Your task to perform on an android device: How do I get to the nearest Apple Store? Image 0: 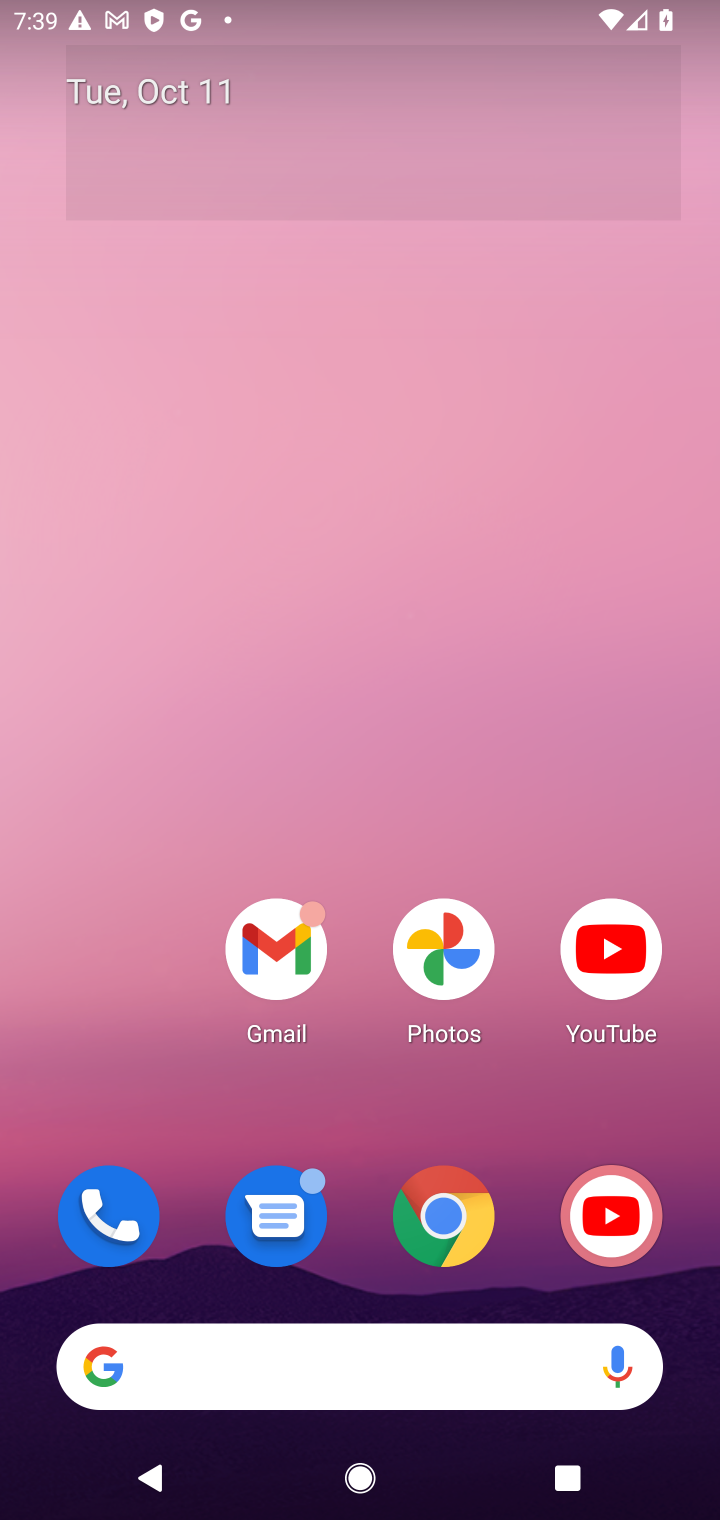
Step 0: click (425, 1208)
Your task to perform on an android device: How do I get to the nearest Apple Store? Image 1: 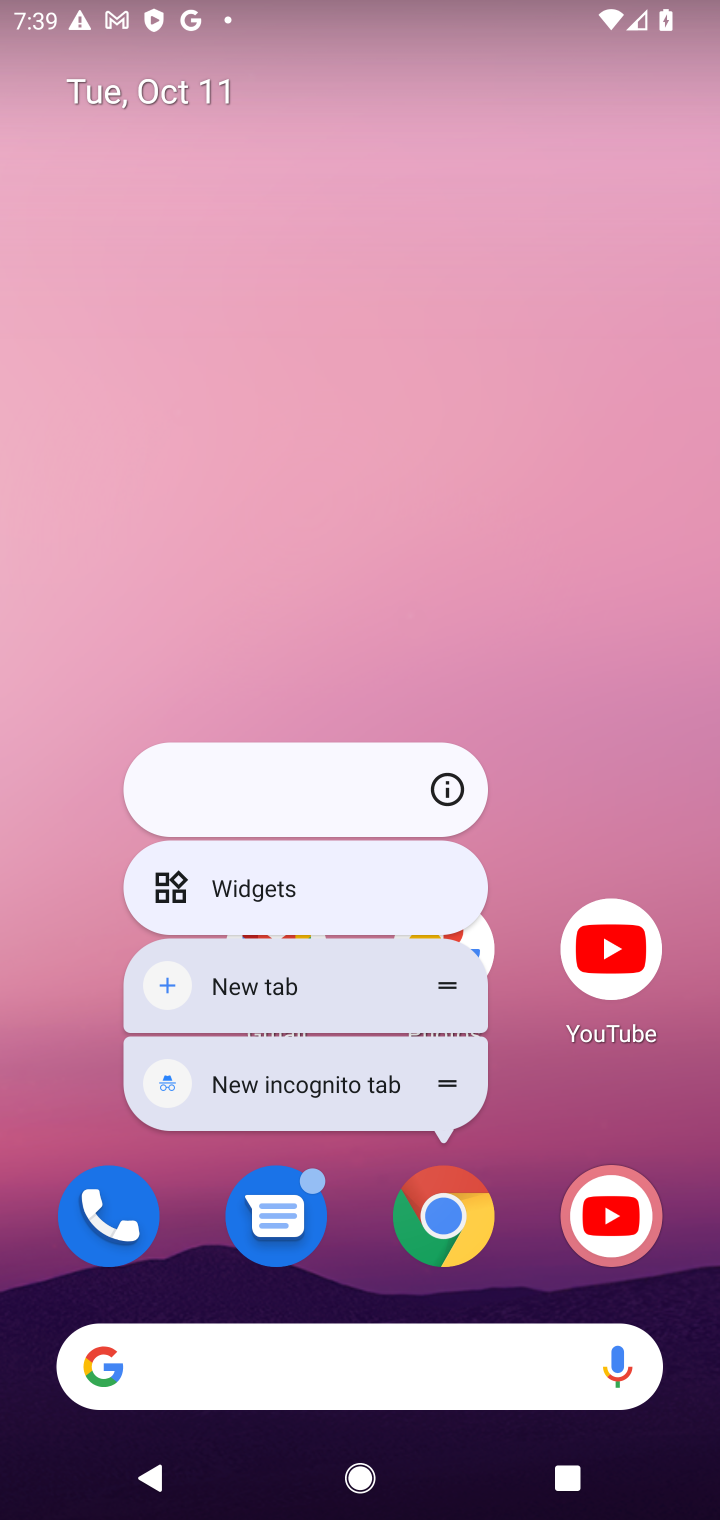
Step 1: click (425, 1208)
Your task to perform on an android device: How do I get to the nearest Apple Store? Image 2: 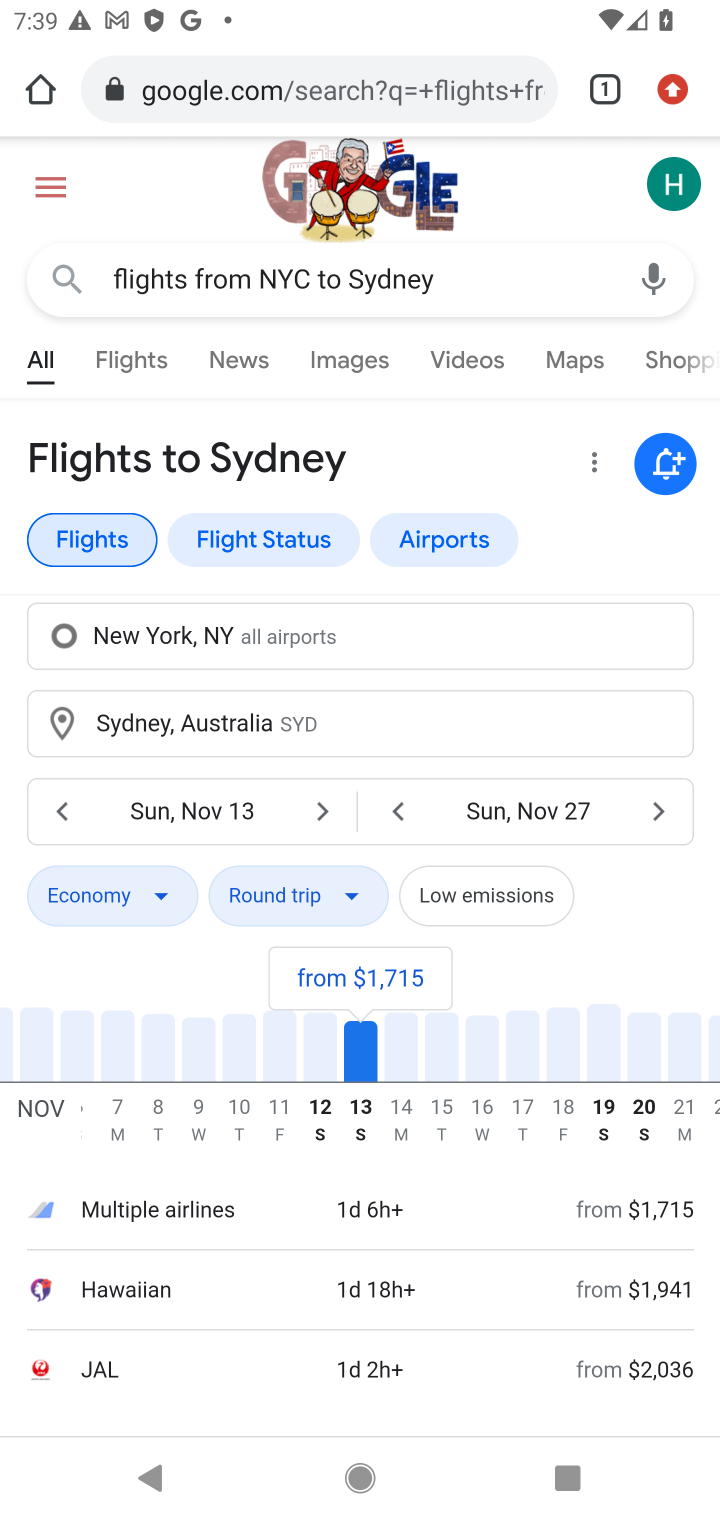
Step 2: click (508, 267)
Your task to perform on an android device: How do I get to the nearest Apple Store? Image 3: 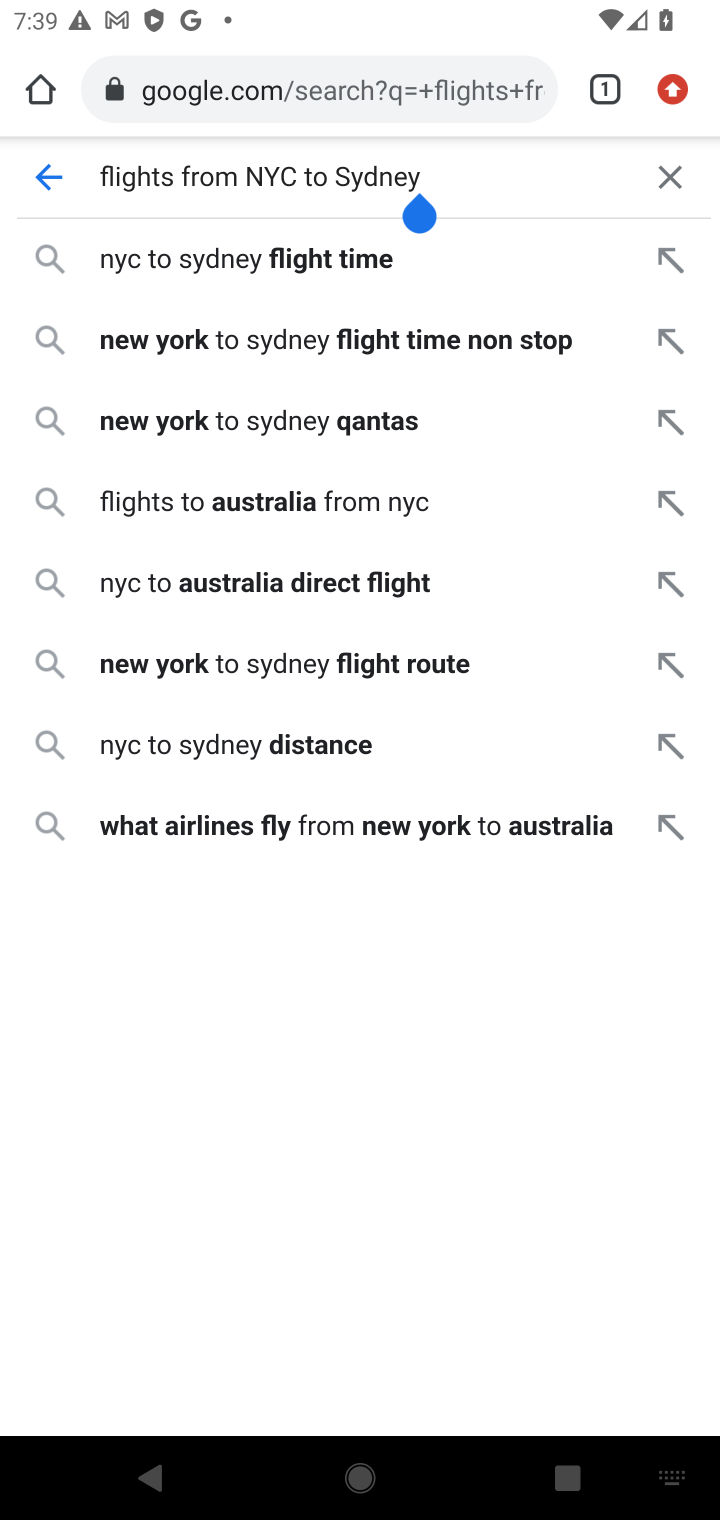
Step 3: click (682, 169)
Your task to perform on an android device: How do I get to the nearest Apple Store? Image 4: 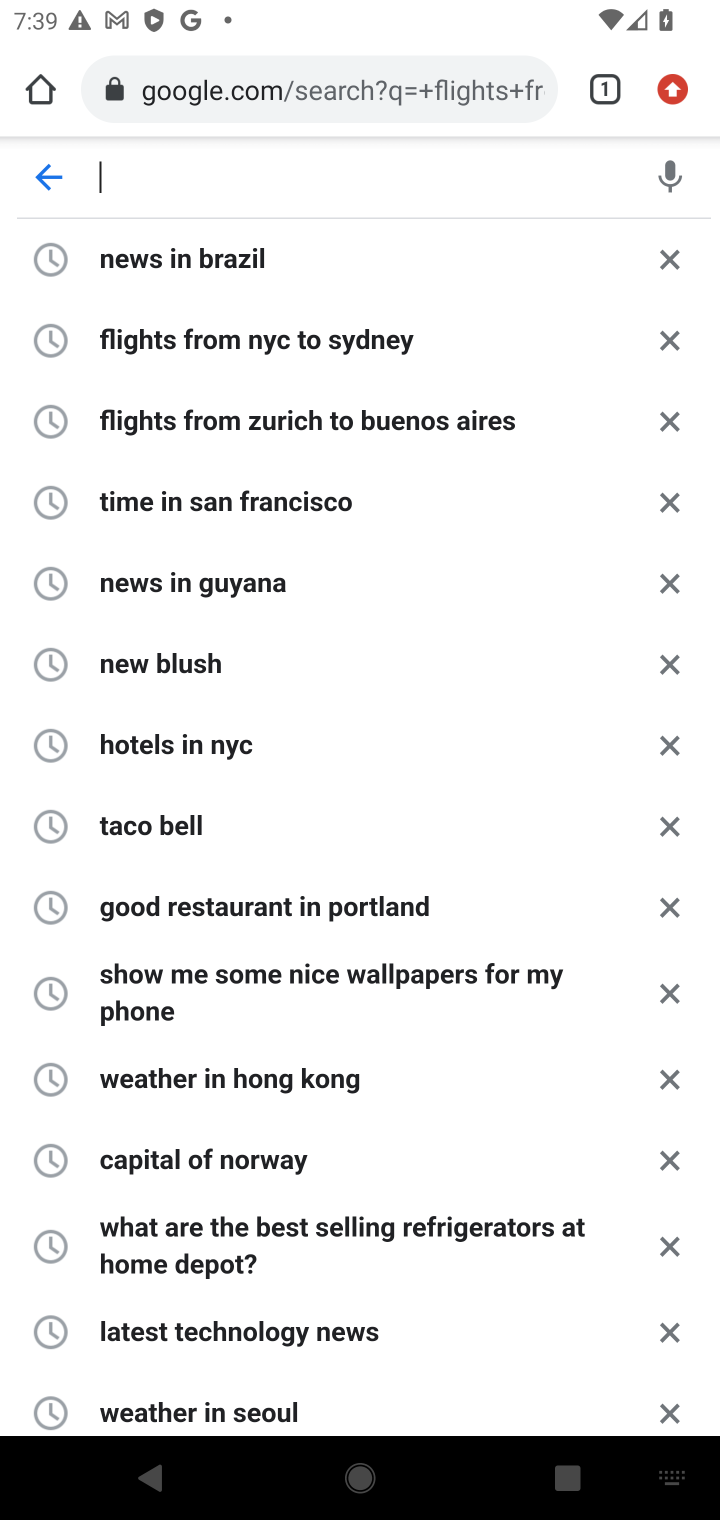
Step 4: type "How do I get to the nearest Apple Store?"
Your task to perform on an android device: How do I get to the nearest Apple Store? Image 5: 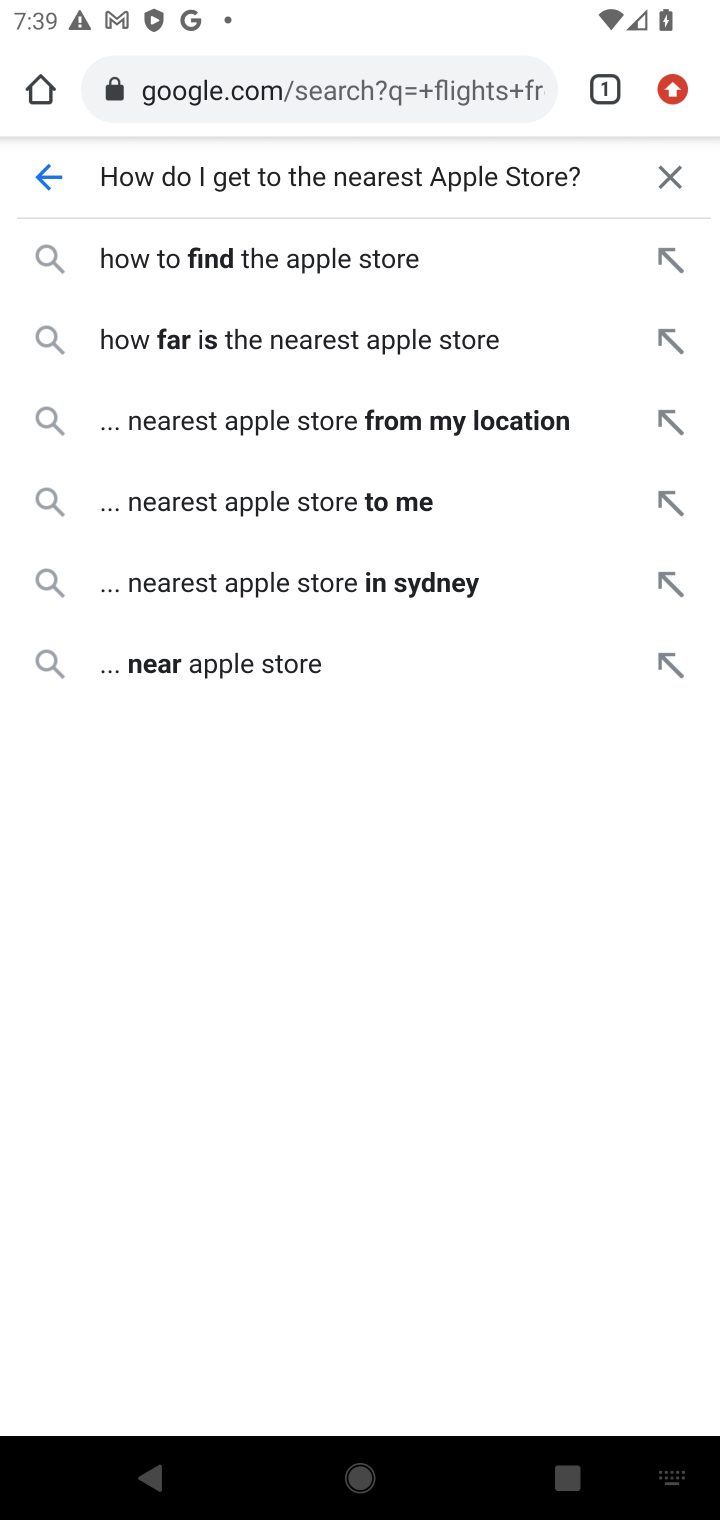
Step 5: press enter
Your task to perform on an android device: How do I get to the nearest Apple Store? Image 6: 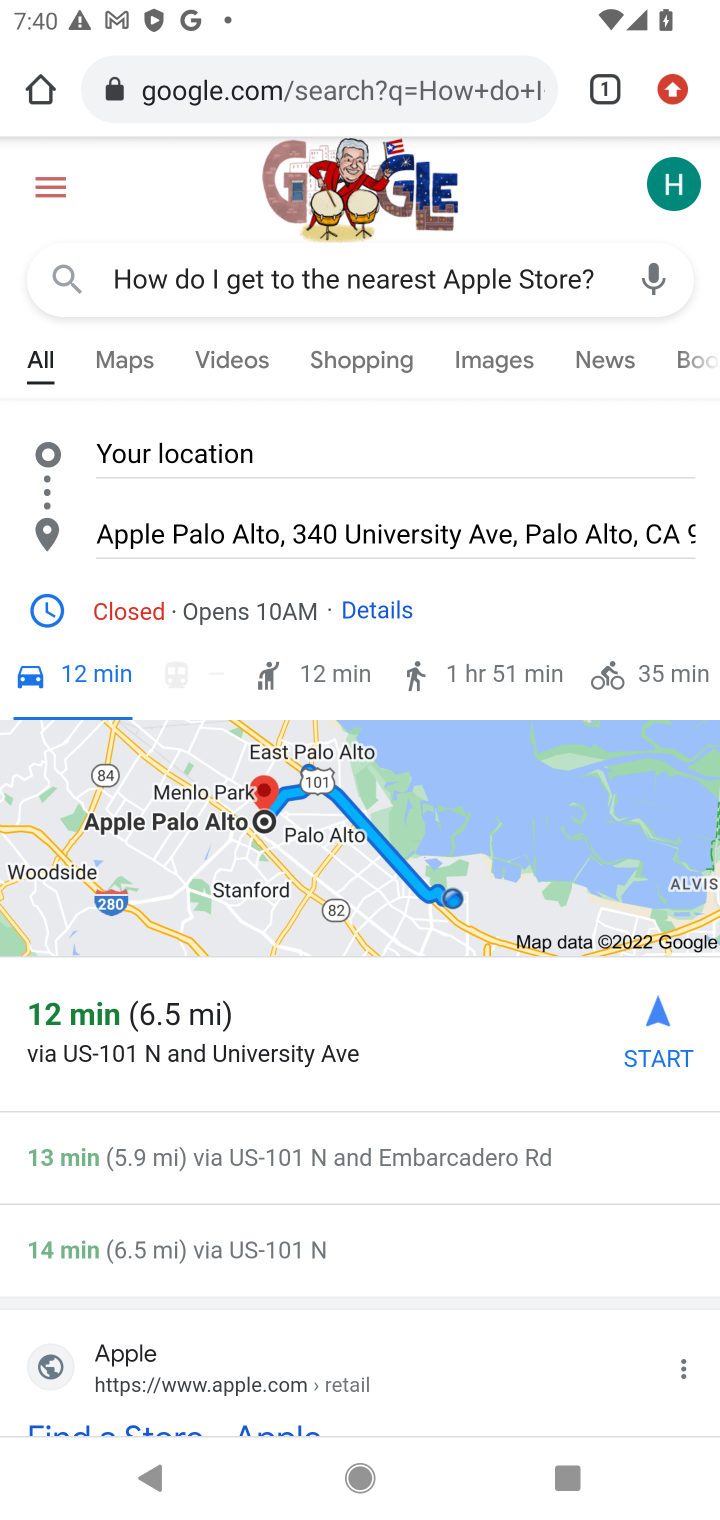
Step 6: task complete